Your task to perform on an android device: Open calendar and show me the fourth week of next month Image 0: 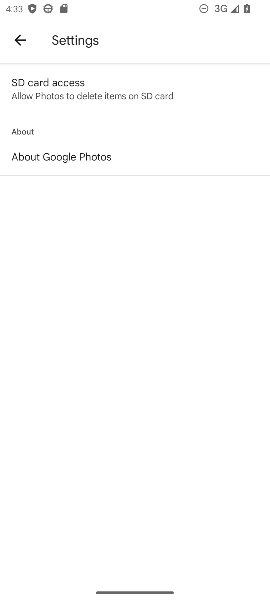
Step 0: press home button
Your task to perform on an android device: Open calendar and show me the fourth week of next month Image 1: 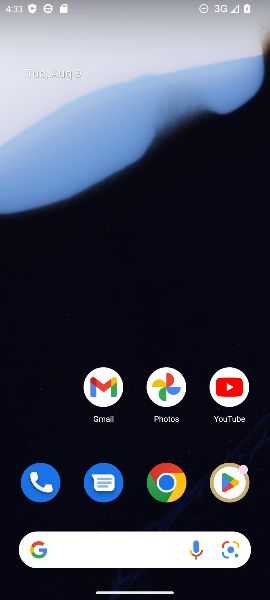
Step 1: drag from (131, 428) to (143, 36)
Your task to perform on an android device: Open calendar and show me the fourth week of next month Image 2: 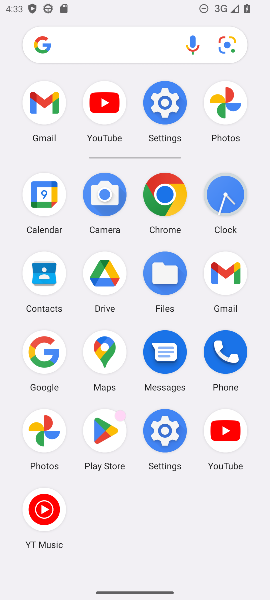
Step 2: click (59, 207)
Your task to perform on an android device: Open calendar and show me the fourth week of next month Image 3: 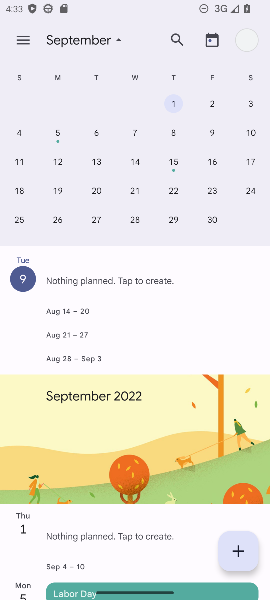
Step 3: click (19, 194)
Your task to perform on an android device: Open calendar and show me the fourth week of next month Image 4: 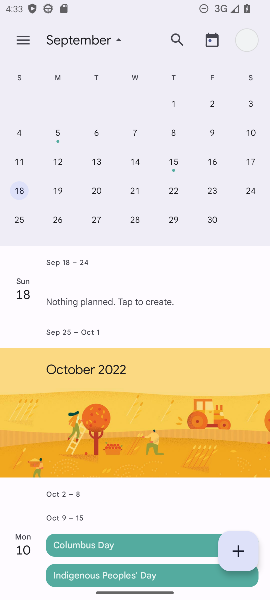
Step 4: click (40, 188)
Your task to perform on an android device: Open calendar and show me the fourth week of next month Image 5: 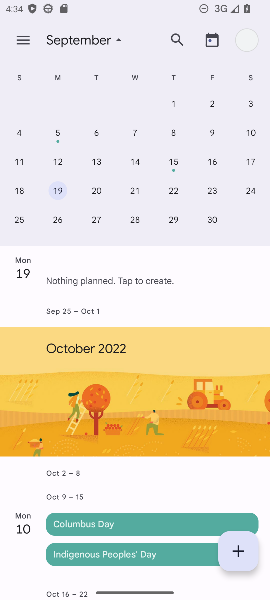
Step 5: task complete